Your task to perform on an android device: toggle sleep mode Image 0: 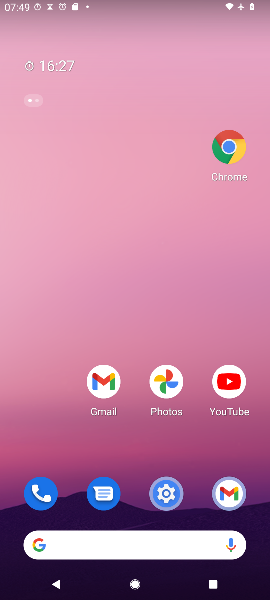
Step 0: press home button
Your task to perform on an android device: toggle sleep mode Image 1: 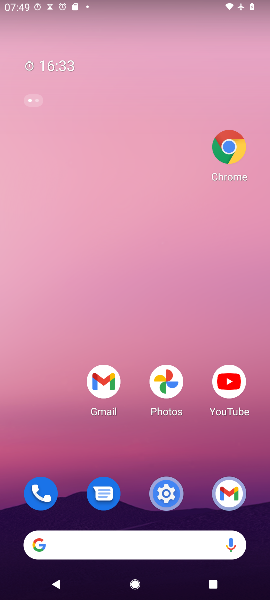
Step 1: drag from (59, 441) to (87, 35)
Your task to perform on an android device: toggle sleep mode Image 2: 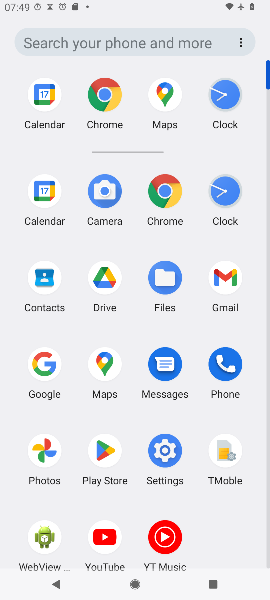
Step 2: click (163, 458)
Your task to perform on an android device: toggle sleep mode Image 3: 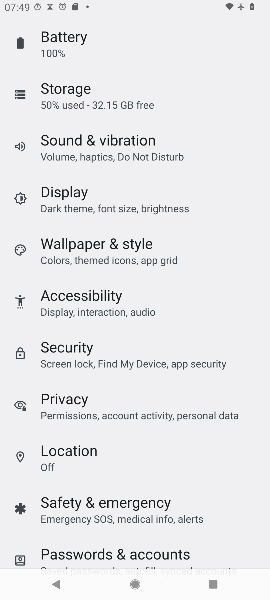
Step 3: click (116, 197)
Your task to perform on an android device: toggle sleep mode Image 4: 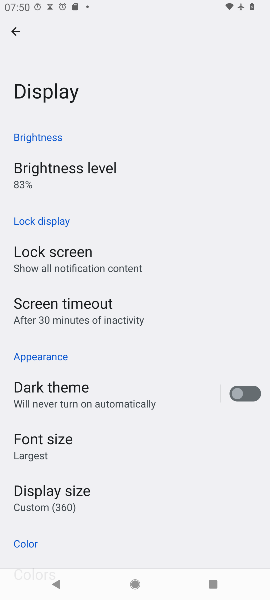
Step 4: task complete